Your task to perform on an android device: change the clock style Image 0: 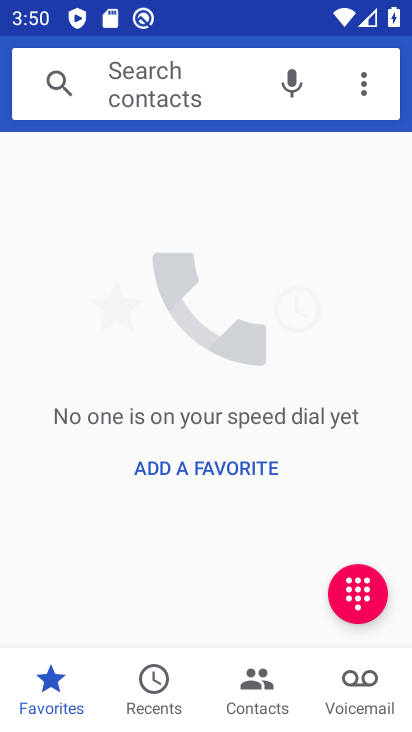
Step 0: press back button
Your task to perform on an android device: change the clock style Image 1: 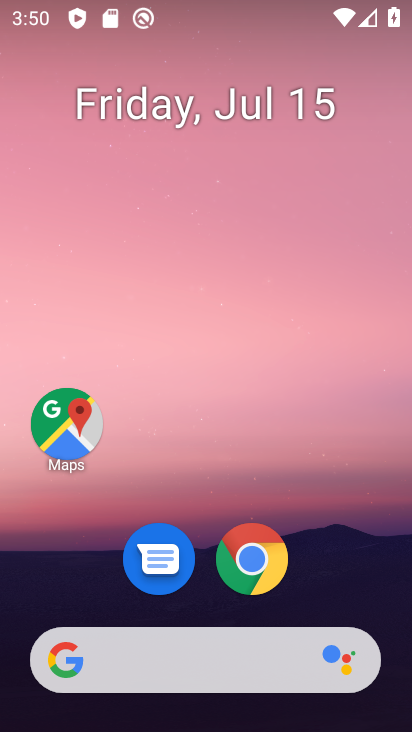
Step 1: drag from (157, 353) to (211, 0)
Your task to perform on an android device: change the clock style Image 2: 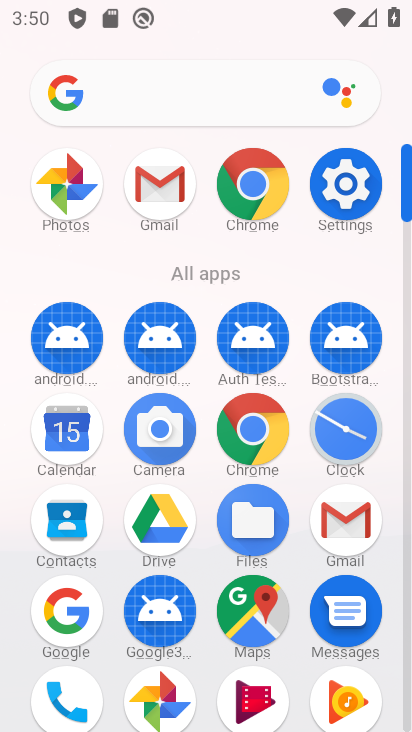
Step 2: click (349, 456)
Your task to perform on an android device: change the clock style Image 3: 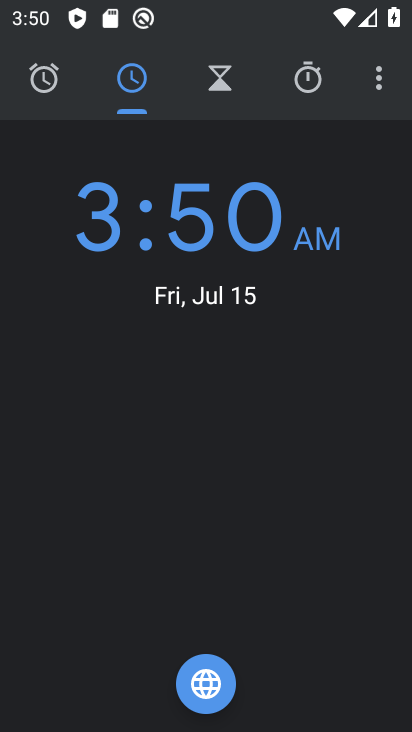
Step 3: click (372, 78)
Your task to perform on an android device: change the clock style Image 4: 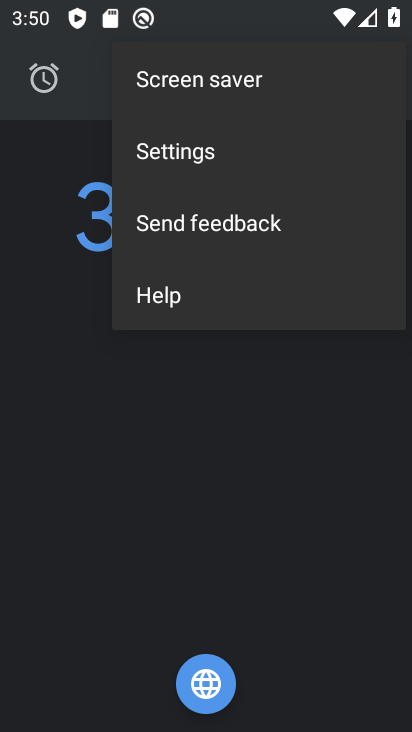
Step 4: click (223, 145)
Your task to perform on an android device: change the clock style Image 5: 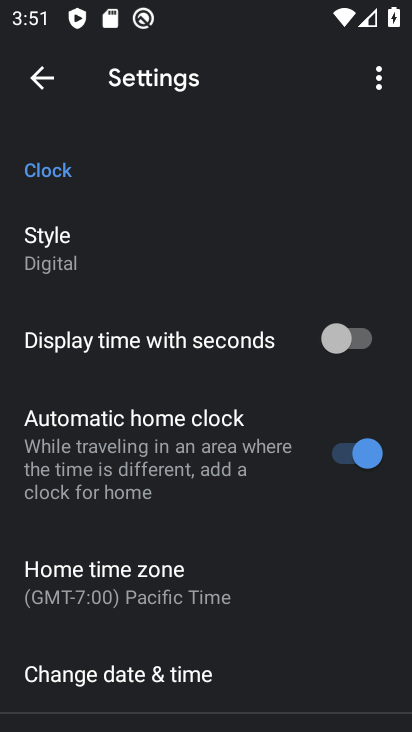
Step 5: click (118, 253)
Your task to perform on an android device: change the clock style Image 6: 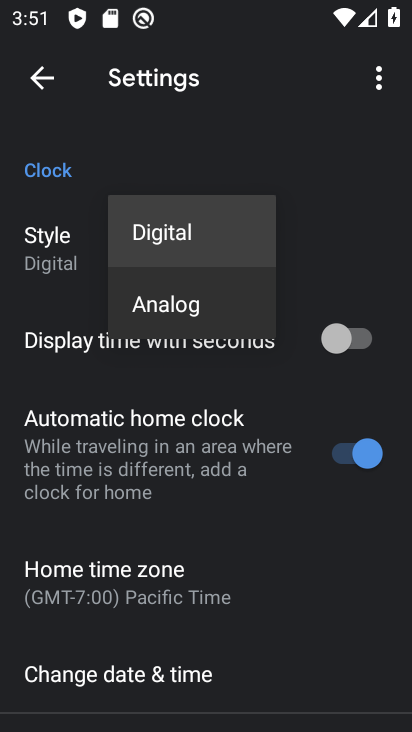
Step 6: click (166, 307)
Your task to perform on an android device: change the clock style Image 7: 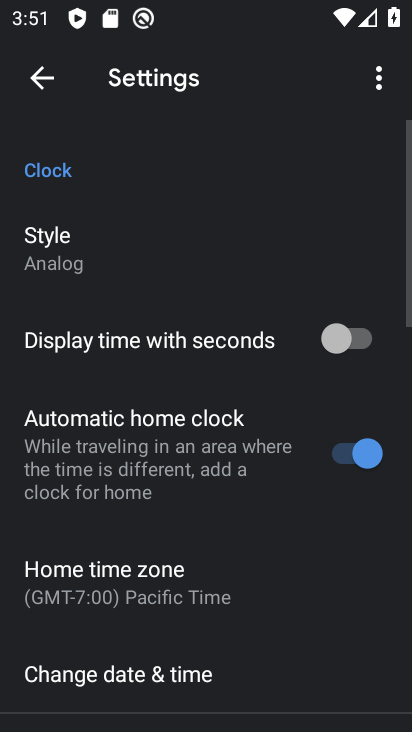
Step 7: task complete